Your task to perform on an android device: open device folders in google photos Image 0: 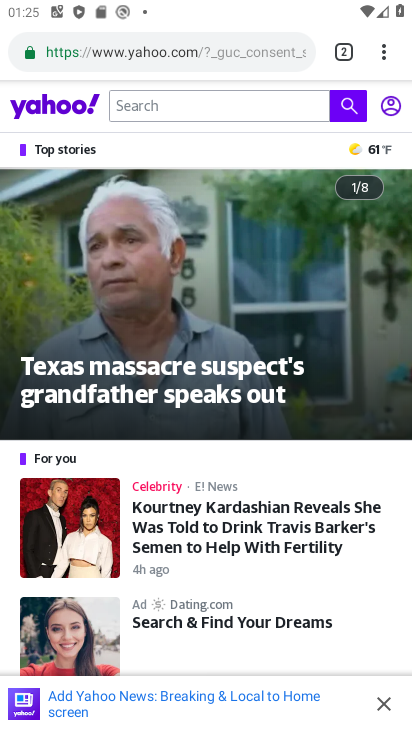
Step 0: press back button
Your task to perform on an android device: open device folders in google photos Image 1: 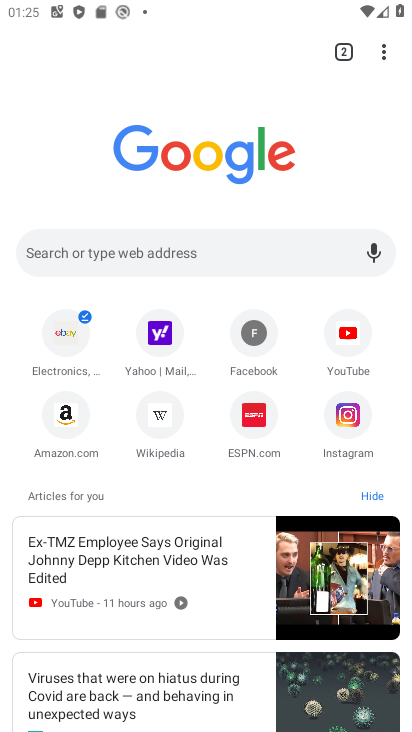
Step 1: press back button
Your task to perform on an android device: open device folders in google photos Image 2: 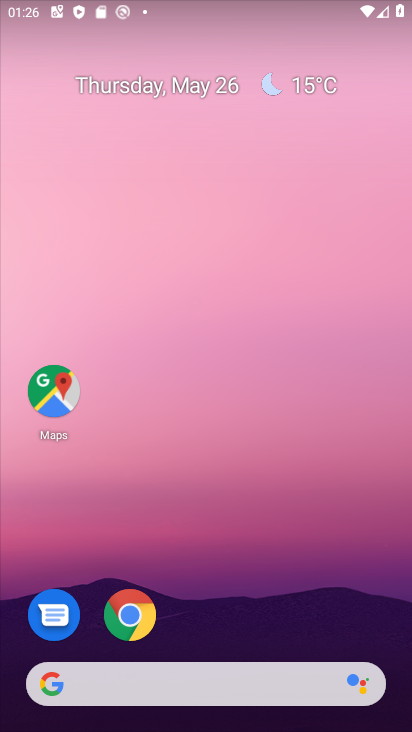
Step 2: drag from (270, 529) to (294, 64)
Your task to perform on an android device: open device folders in google photos Image 3: 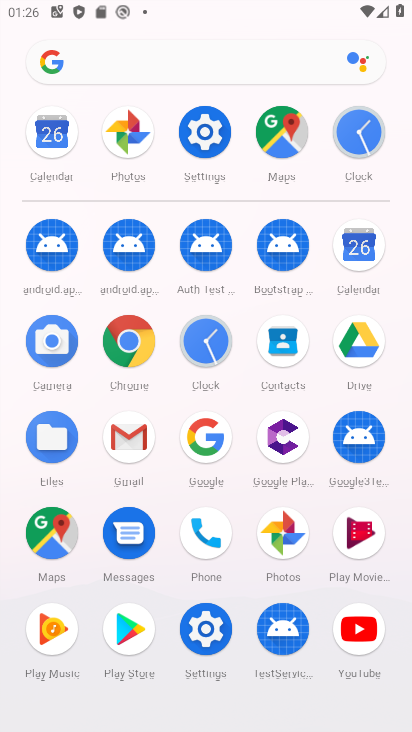
Step 3: click (289, 532)
Your task to perform on an android device: open device folders in google photos Image 4: 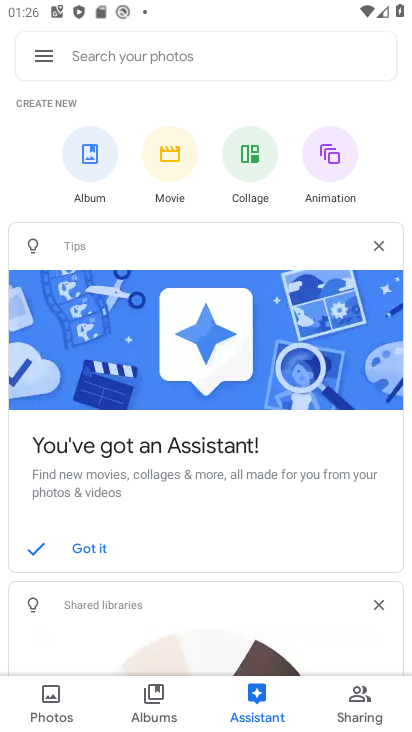
Step 4: click (37, 47)
Your task to perform on an android device: open device folders in google photos Image 5: 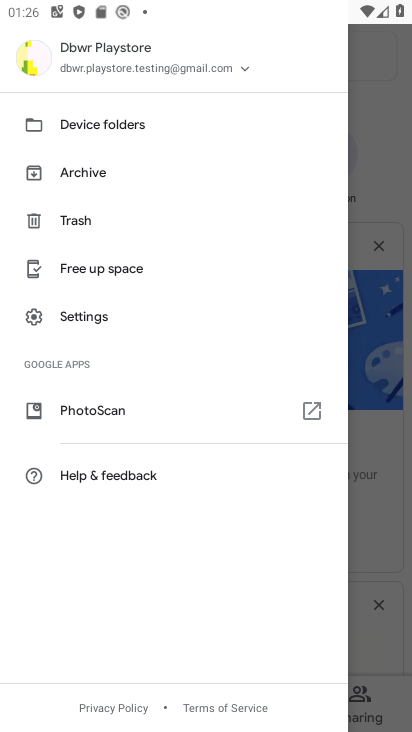
Step 5: click (135, 121)
Your task to perform on an android device: open device folders in google photos Image 6: 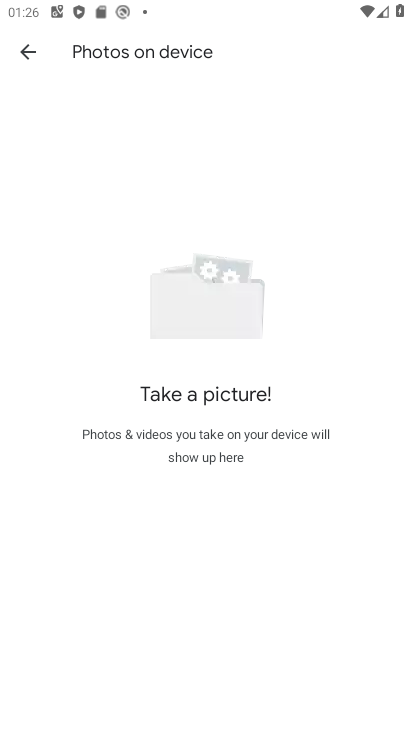
Step 6: task complete